Your task to perform on an android device: When is my next meeting? Image 0: 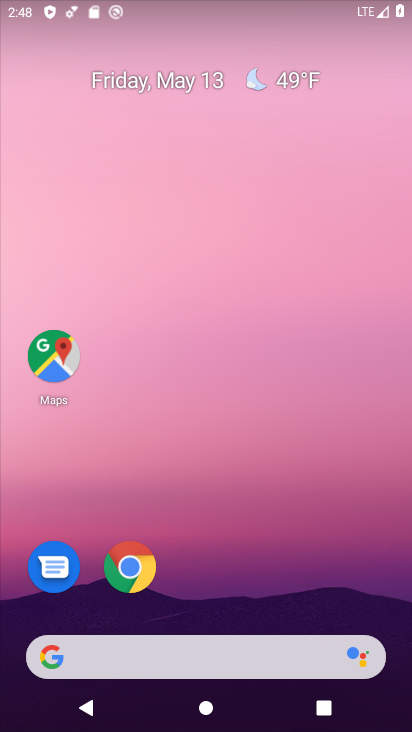
Step 0: drag from (174, 628) to (130, 0)
Your task to perform on an android device: When is my next meeting? Image 1: 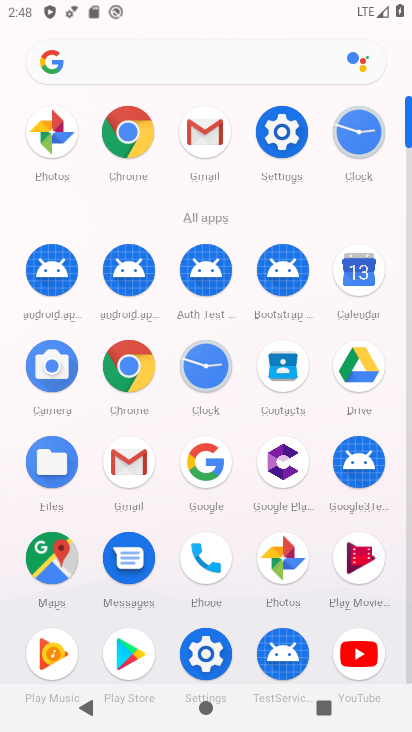
Step 1: click (357, 268)
Your task to perform on an android device: When is my next meeting? Image 2: 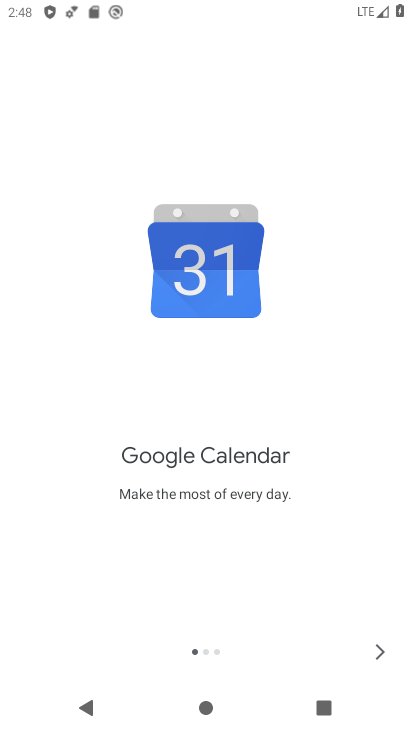
Step 2: click (371, 641)
Your task to perform on an android device: When is my next meeting? Image 3: 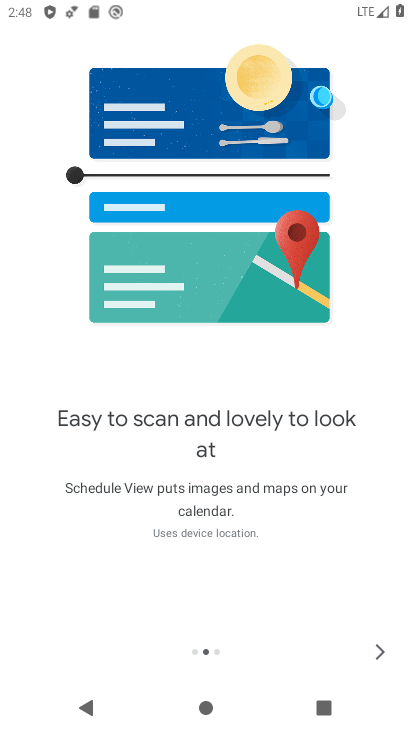
Step 3: click (375, 646)
Your task to perform on an android device: When is my next meeting? Image 4: 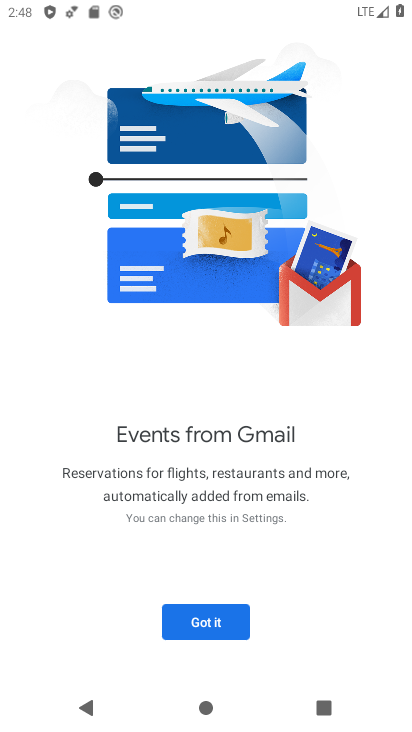
Step 4: click (233, 617)
Your task to perform on an android device: When is my next meeting? Image 5: 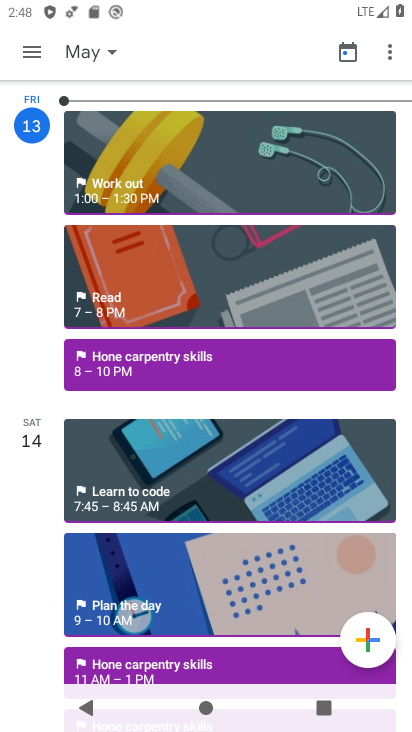
Step 5: task complete